Your task to perform on an android device: check battery use Image 0: 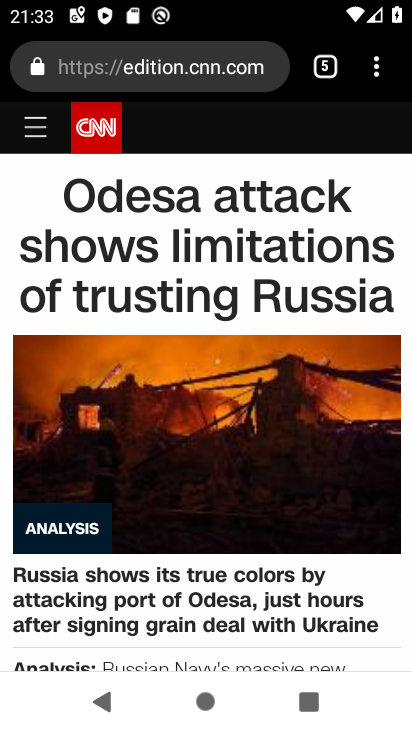
Step 0: press home button
Your task to perform on an android device: check battery use Image 1: 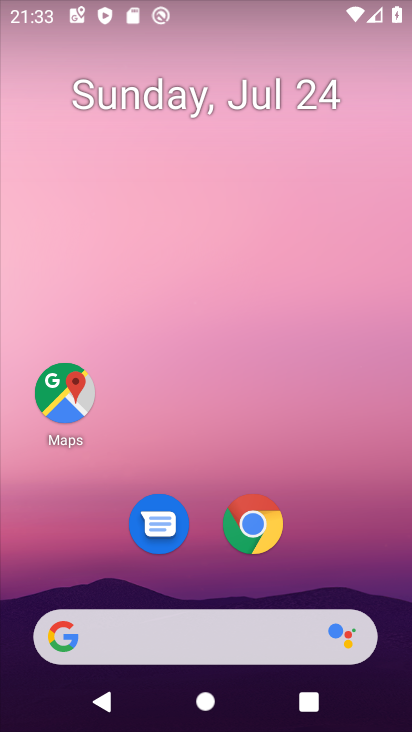
Step 1: drag from (207, 588) to (181, 0)
Your task to perform on an android device: check battery use Image 2: 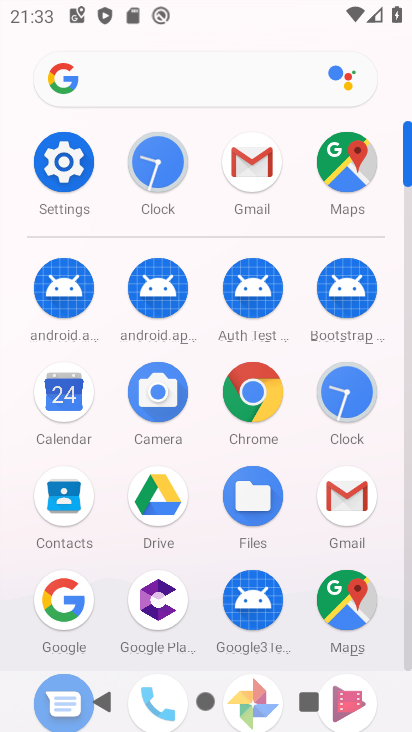
Step 2: click (51, 161)
Your task to perform on an android device: check battery use Image 3: 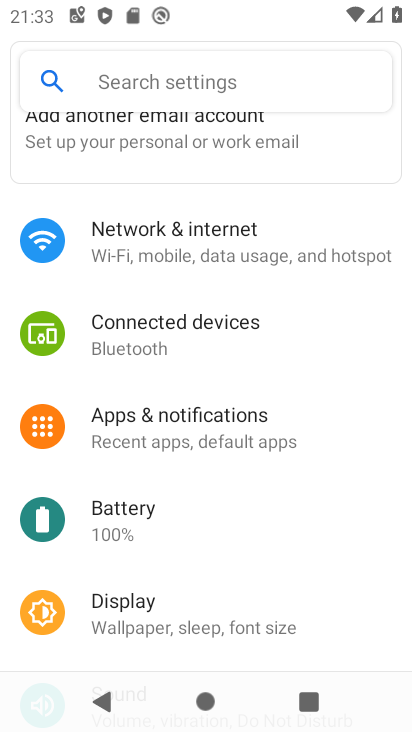
Step 3: click (154, 514)
Your task to perform on an android device: check battery use Image 4: 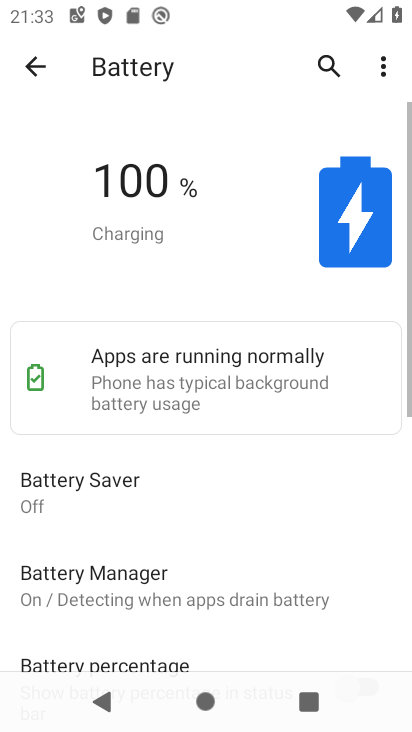
Step 4: click (378, 72)
Your task to perform on an android device: check battery use Image 5: 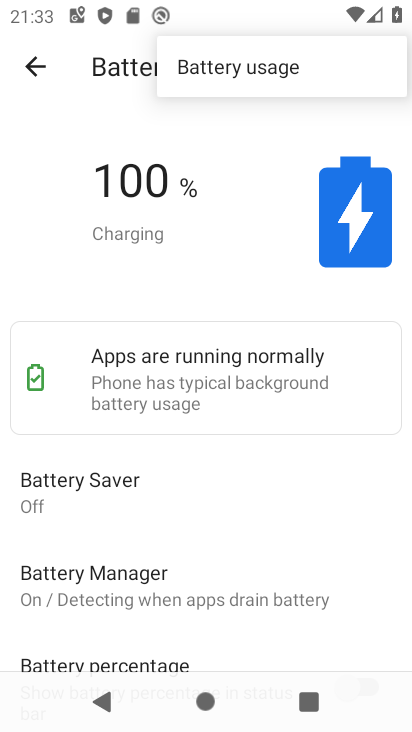
Step 5: click (258, 69)
Your task to perform on an android device: check battery use Image 6: 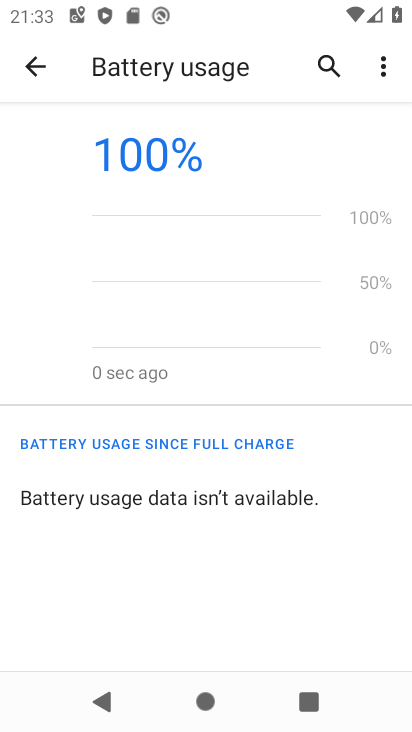
Step 6: task complete